Your task to perform on an android device: clear history in the chrome app Image 0: 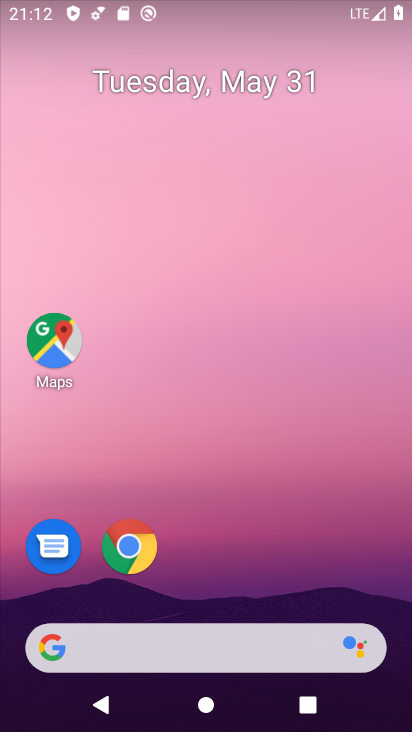
Step 0: click (125, 546)
Your task to perform on an android device: clear history in the chrome app Image 1: 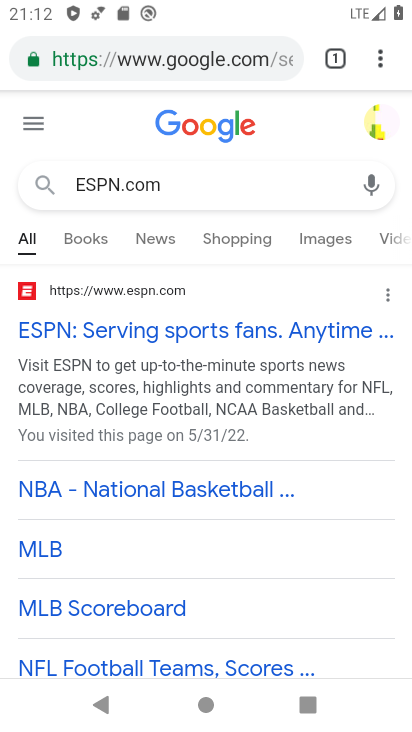
Step 1: click (376, 59)
Your task to perform on an android device: clear history in the chrome app Image 2: 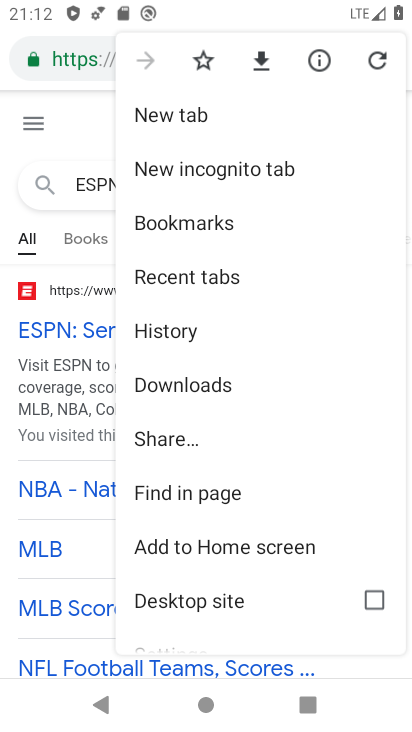
Step 2: click (145, 340)
Your task to perform on an android device: clear history in the chrome app Image 3: 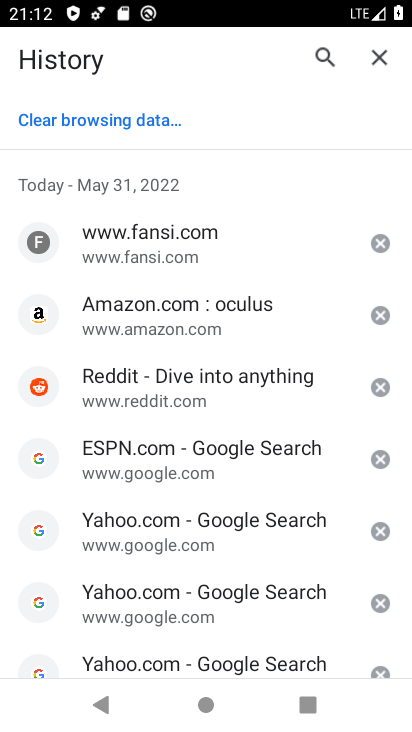
Step 3: click (147, 122)
Your task to perform on an android device: clear history in the chrome app Image 4: 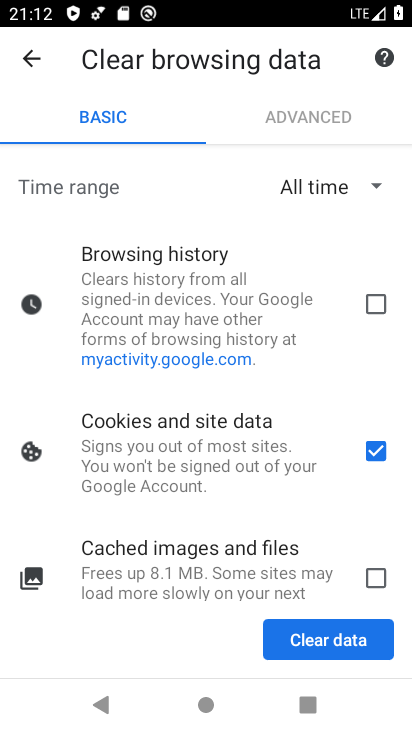
Step 4: click (347, 644)
Your task to perform on an android device: clear history in the chrome app Image 5: 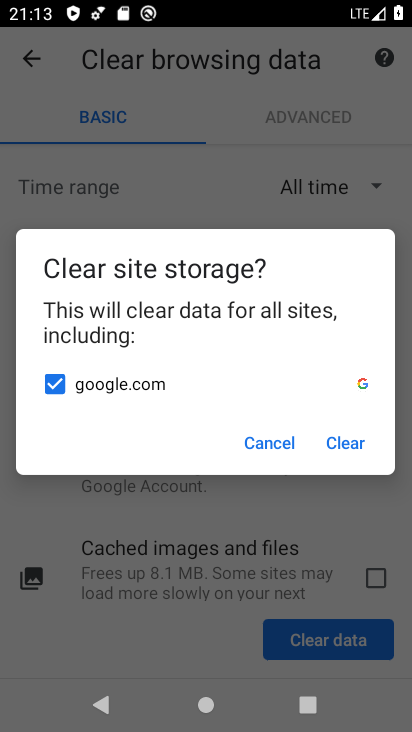
Step 5: click (345, 445)
Your task to perform on an android device: clear history in the chrome app Image 6: 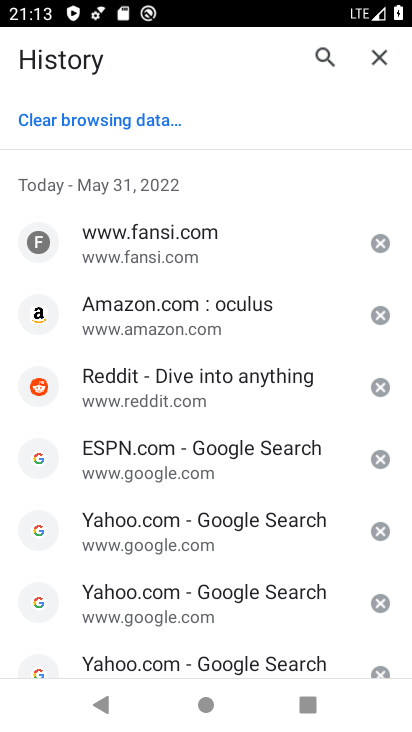
Step 6: click (129, 119)
Your task to perform on an android device: clear history in the chrome app Image 7: 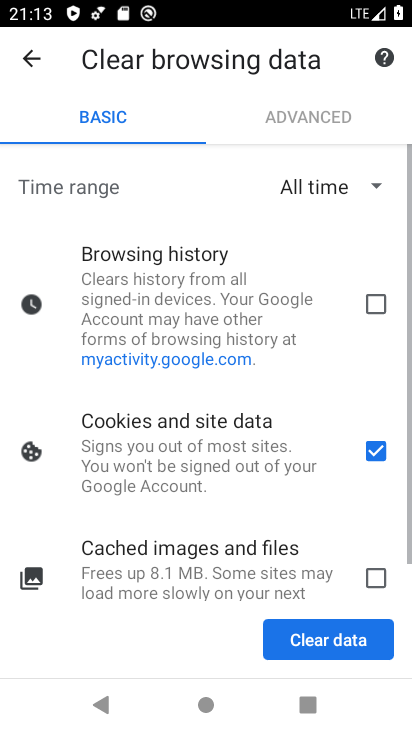
Step 7: click (371, 301)
Your task to perform on an android device: clear history in the chrome app Image 8: 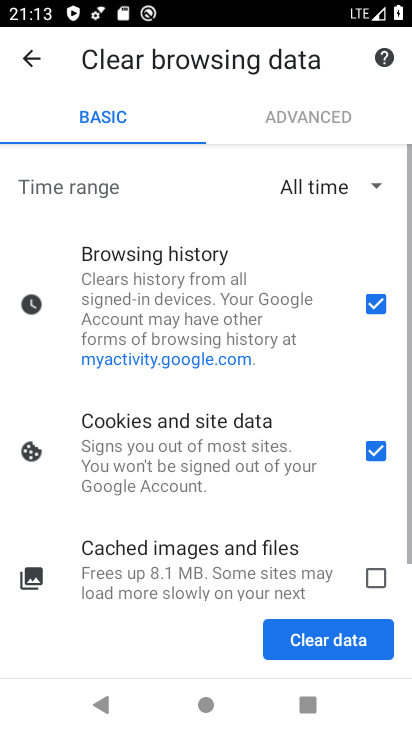
Step 8: click (374, 569)
Your task to perform on an android device: clear history in the chrome app Image 9: 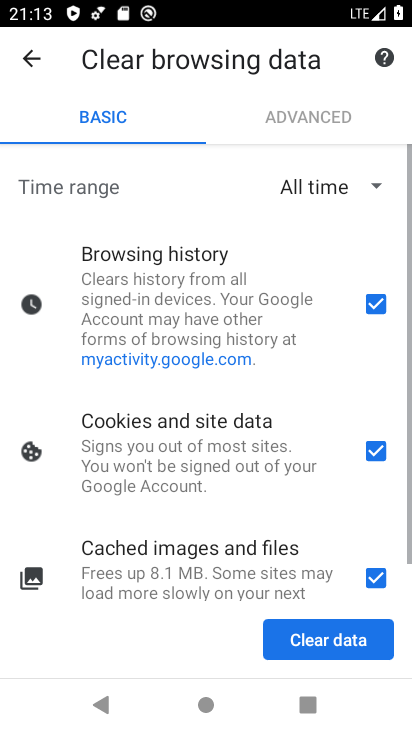
Step 9: click (336, 653)
Your task to perform on an android device: clear history in the chrome app Image 10: 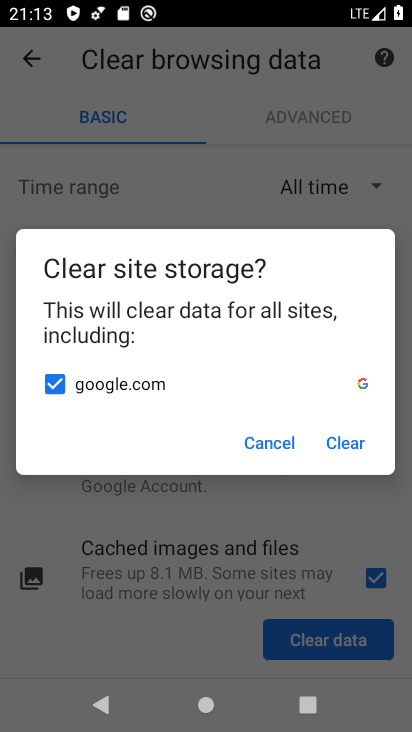
Step 10: click (338, 441)
Your task to perform on an android device: clear history in the chrome app Image 11: 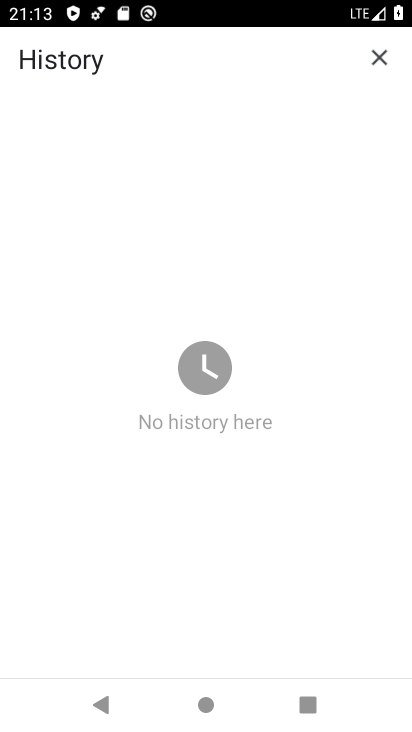
Step 11: task complete